Your task to perform on an android device: Search for Italian restaurants on Maps Image 0: 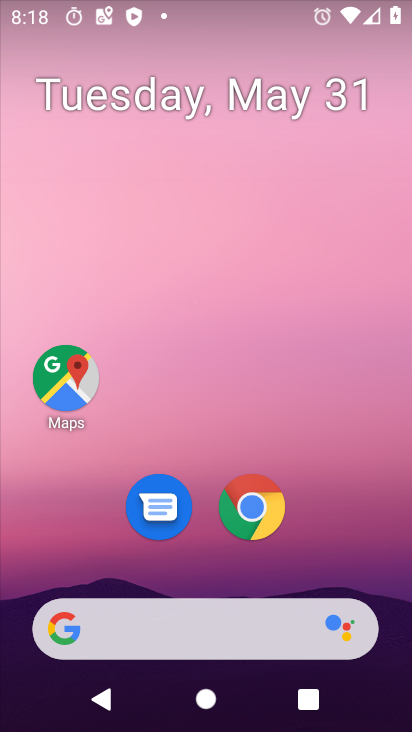
Step 0: click (64, 378)
Your task to perform on an android device: Search for Italian restaurants on Maps Image 1: 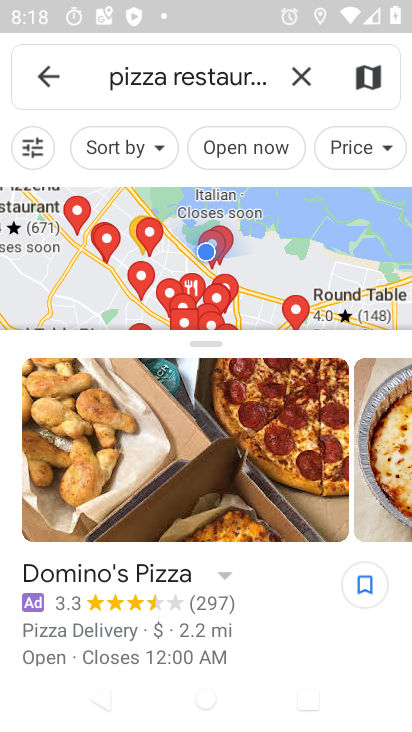
Step 1: click (298, 85)
Your task to perform on an android device: Search for Italian restaurants on Maps Image 2: 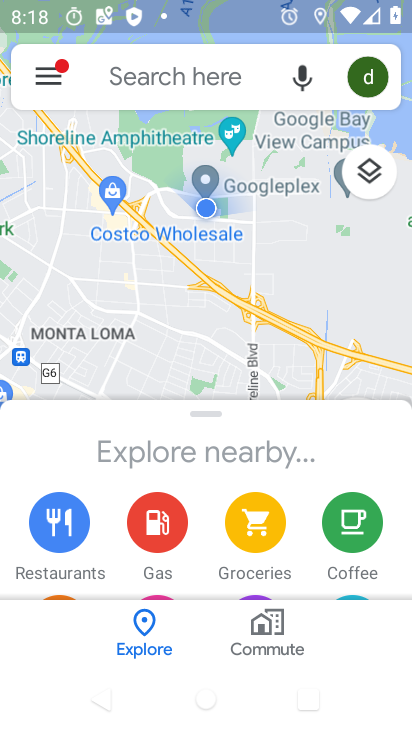
Step 2: click (119, 78)
Your task to perform on an android device: Search for Italian restaurants on Maps Image 3: 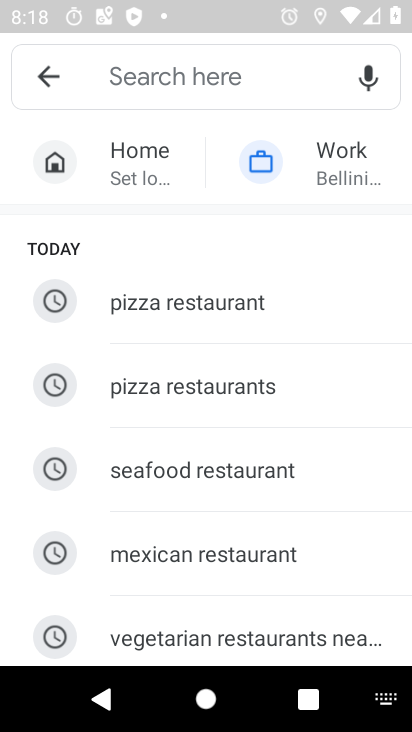
Step 3: click (118, 82)
Your task to perform on an android device: Search for Italian restaurants on Maps Image 4: 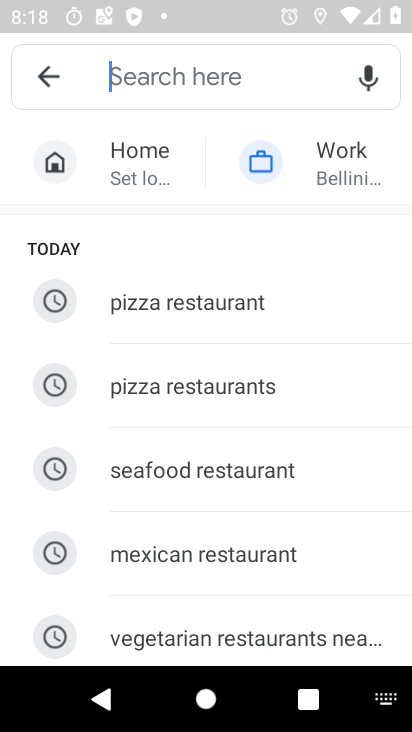
Step 4: type "italian restaurants"
Your task to perform on an android device: Search for Italian restaurants on Maps Image 5: 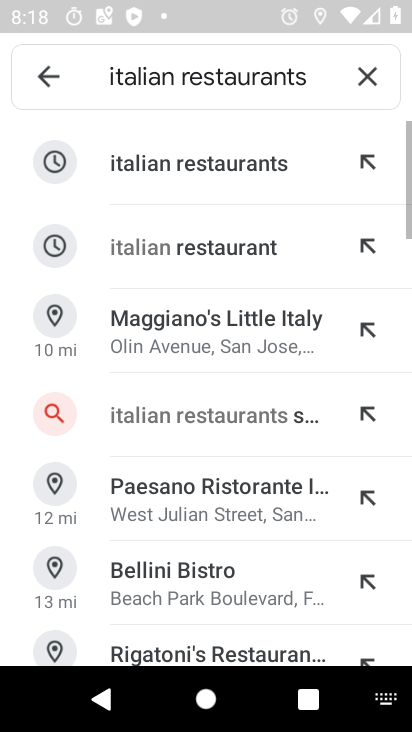
Step 5: click (168, 164)
Your task to perform on an android device: Search for Italian restaurants on Maps Image 6: 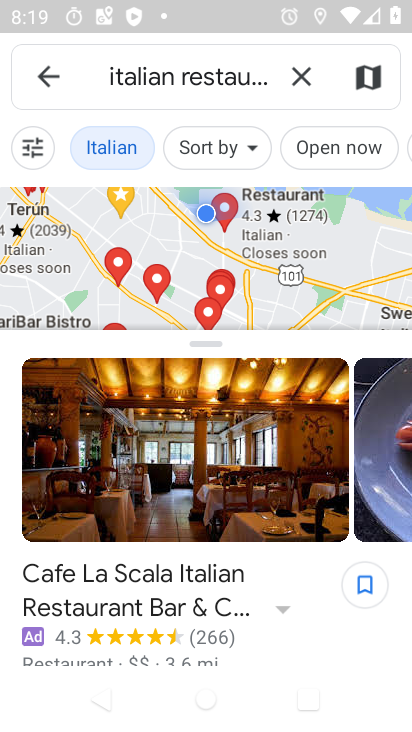
Step 6: task complete